Your task to perform on an android device: What is the recent news? Image 0: 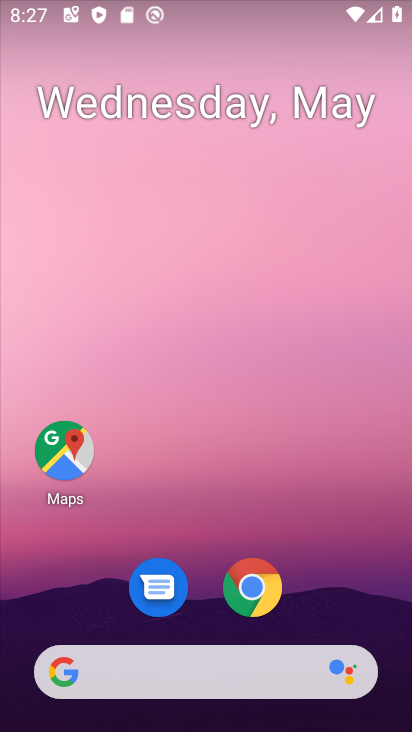
Step 0: drag from (4, 261) to (404, 375)
Your task to perform on an android device: What is the recent news? Image 1: 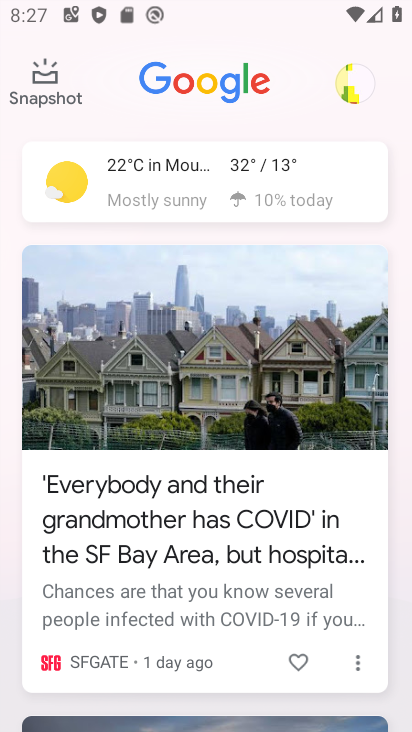
Step 1: task complete